Your task to perform on an android device: empty trash in the gmail app Image 0: 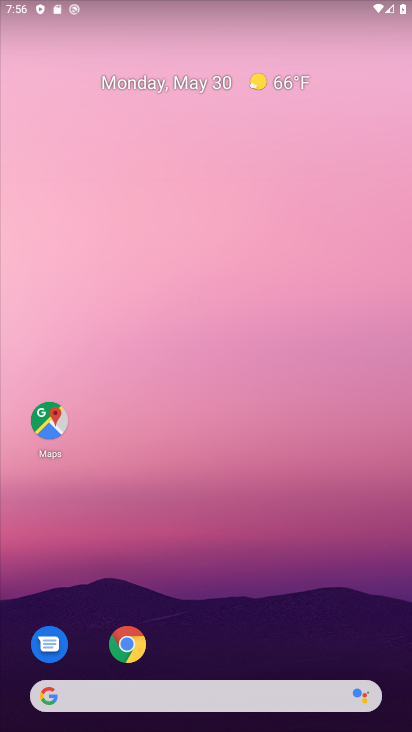
Step 0: drag from (216, 649) to (262, 122)
Your task to perform on an android device: empty trash in the gmail app Image 1: 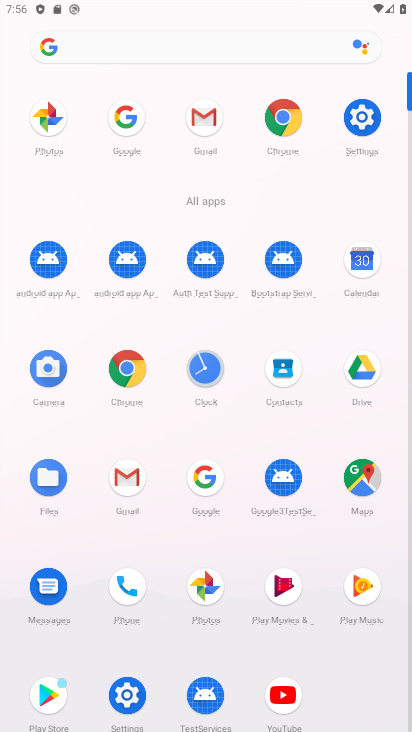
Step 1: click (195, 106)
Your task to perform on an android device: empty trash in the gmail app Image 2: 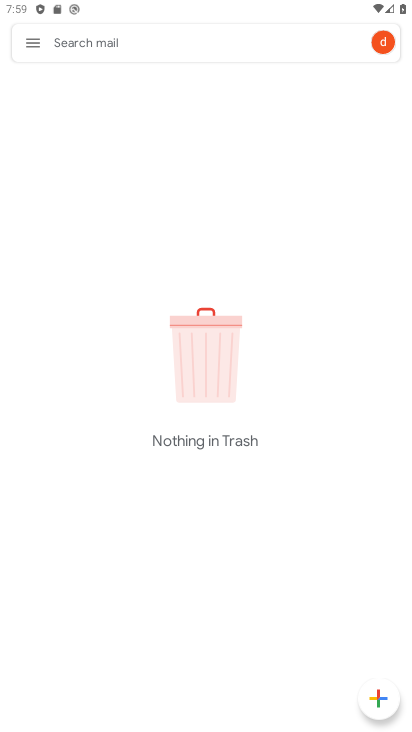
Step 2: task complete